Your task to perform on an android device: toggle sleep mode Image 0: 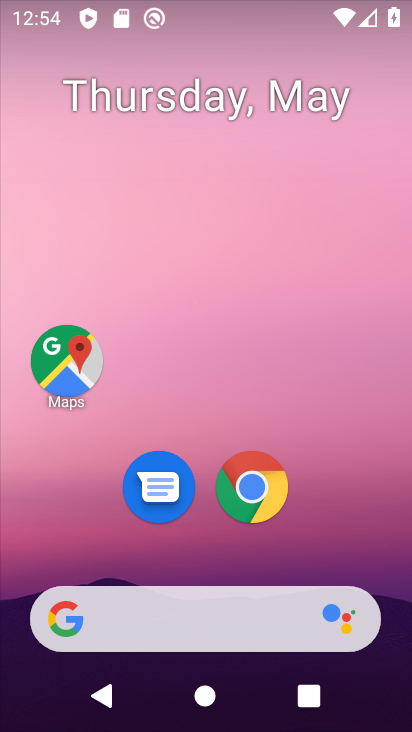
Step 0: drag from (332, 541) to (356, 31)
Your task to perform on an android device: toggle sleep mode Image 1: 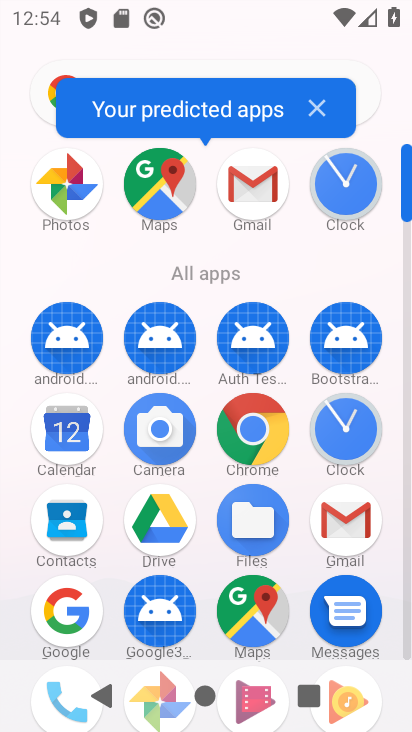
Step 1: drag from (157, 579) to (220, 161)
Your task to perform on an android device: toggle sleep mode Image 2: 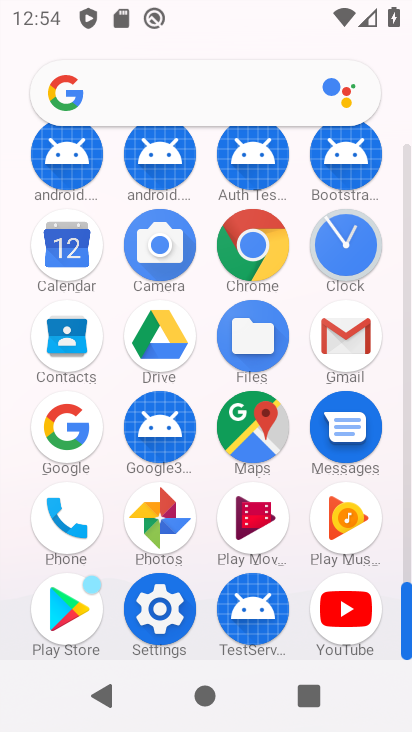
Step 2: drag from (161, 603) to (97, 200)
Your task to perform on an android device: toggle sleep mode Image 3: 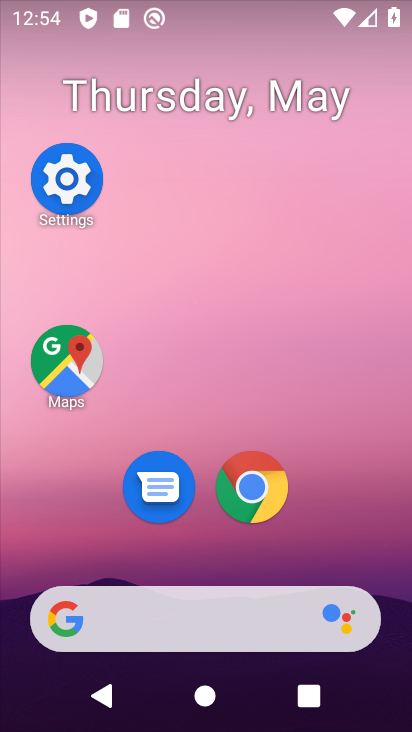
Step 3: click (71, 176)
Your task to perform on an android device: toggle sleep mode Image 4: 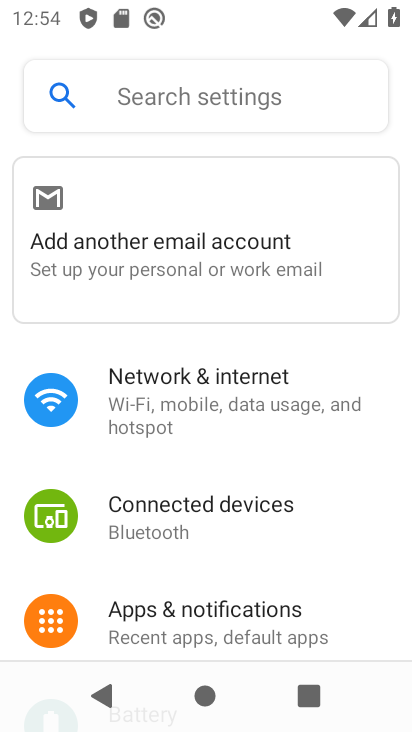
Step 4: drag from (232, 563) to (235, 233)
Your task to perform on an android device: toggle sleep mode Image 5: 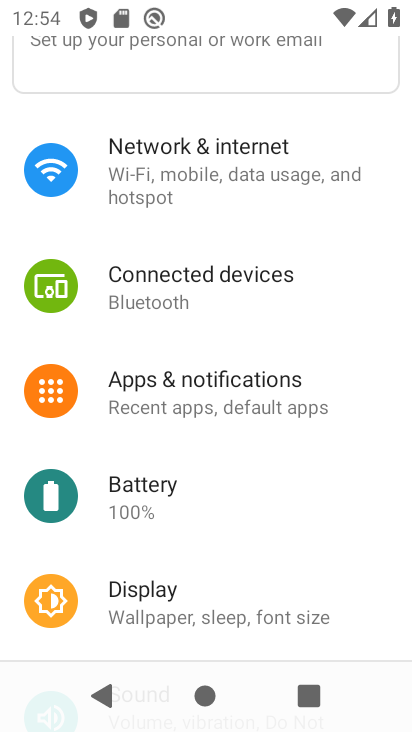
Step 5: drag from (250, 489) to (241, 159)
Your task to perform on an android device: toggle sleep mode Image 6: 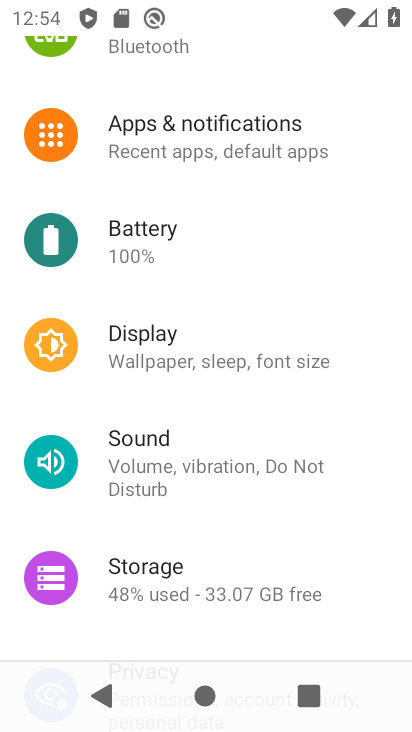
Step 6: click (226, 370)
Your task to perform on an android device: toggle sleep mode Image 7: 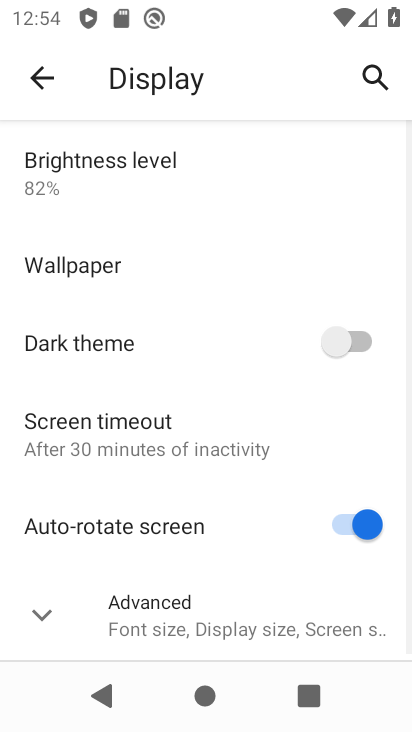
Step 7: click (166, 438)
Your task to perform on an android device: toggle sleep mode Image 8: 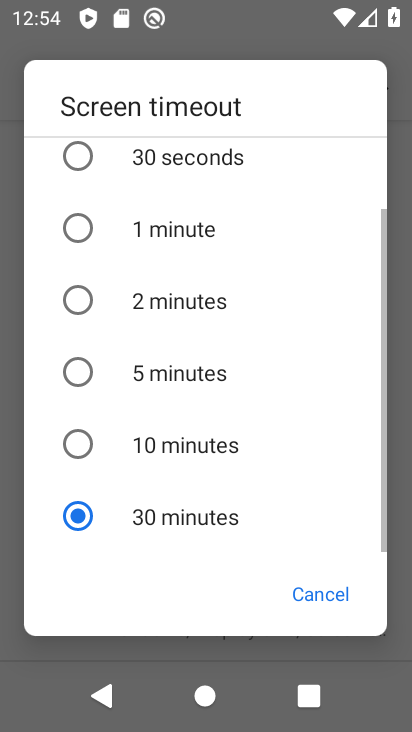
Step 8: click (161, 239)
Your task to perform on an android device: toggle sleep mode Image 9: 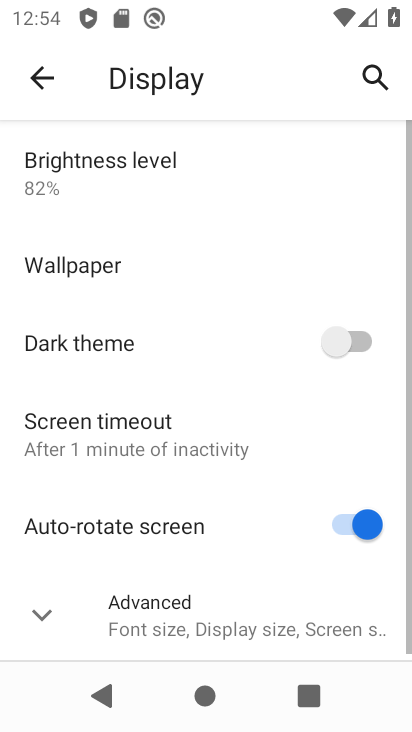
Step 9: task complete